Your task to perform on an android device: snooze an email in the gmail app Image 0: 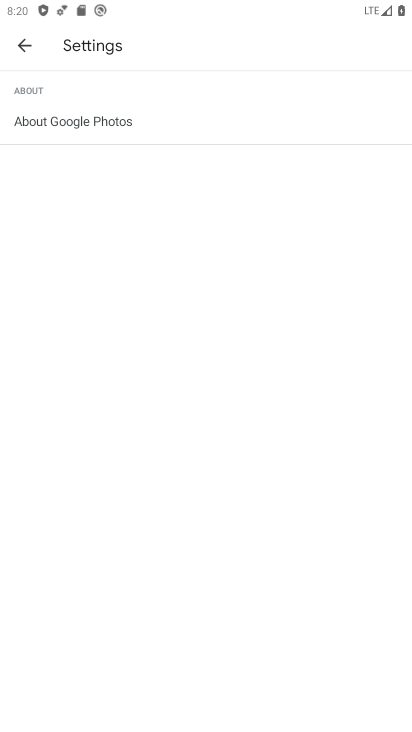
Step 0: press home button
Your task to perform on an android device: snooze an email in the gmail app Image 1: 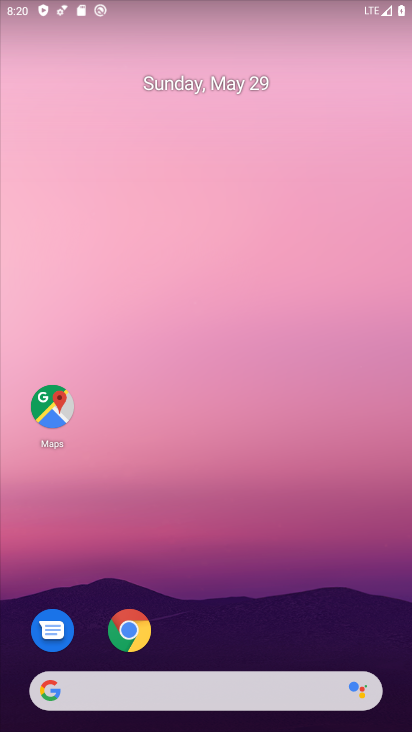
Step 1: drag from (232, 658) to (163, 123)
Your task to perform on an android device: snooze an email in the gmail app Image 2: 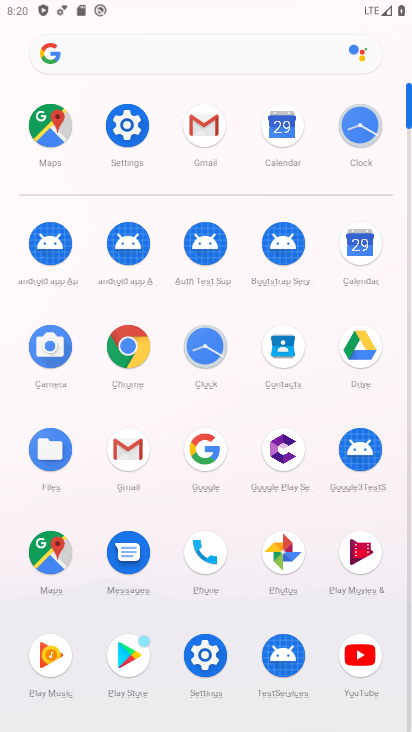
Step 2: click (114, 451)
Your task to perform on an android device: snooze an email in the gmail app Image 3: 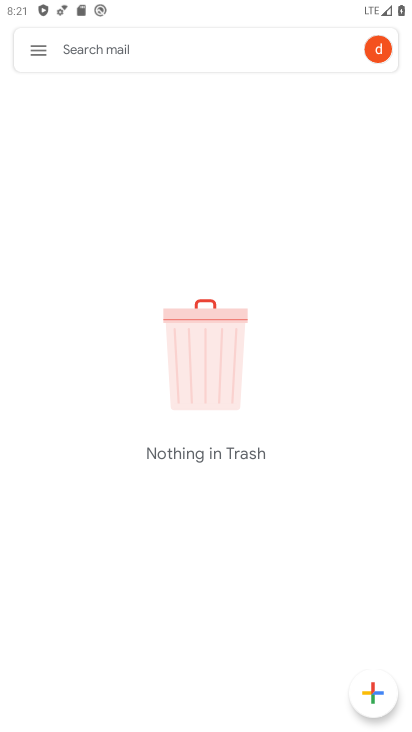
Step 3: click (37, 58)
Your task to perform on an android device: snooze an email in the gmail app Image 4: 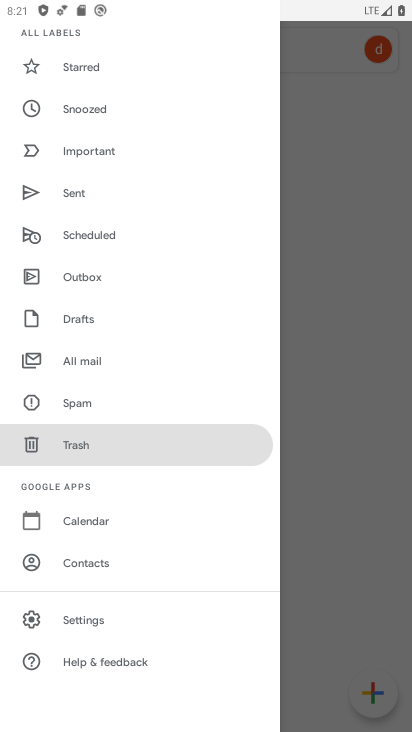
Step 4: click (75, 345)
Your task to perform on an android device: snooze an email in the gmail app Image 5: 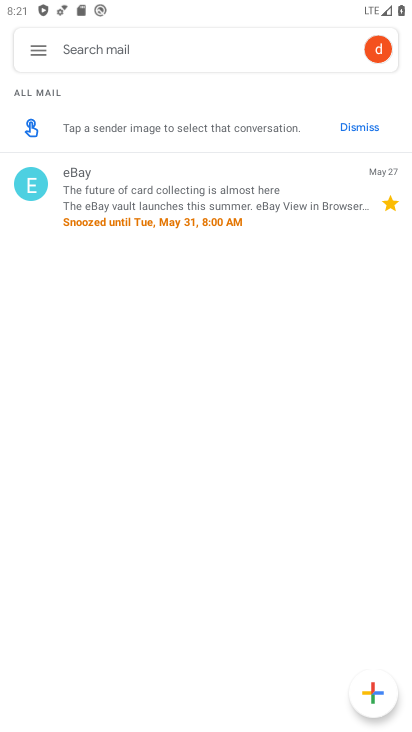
Step 5: click (325, 155)
Your task to perform on an android device: snooze an email in the gmail app Image 6: 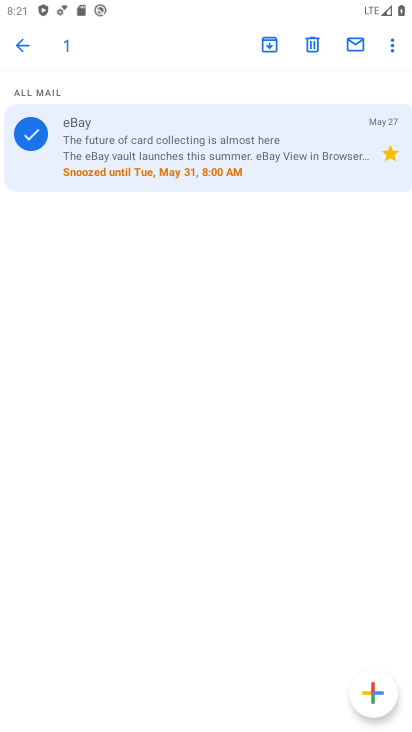
Step 6: click (393, 40)
Your task to perform on an android device: snooze an email in the gmail app Image 7: 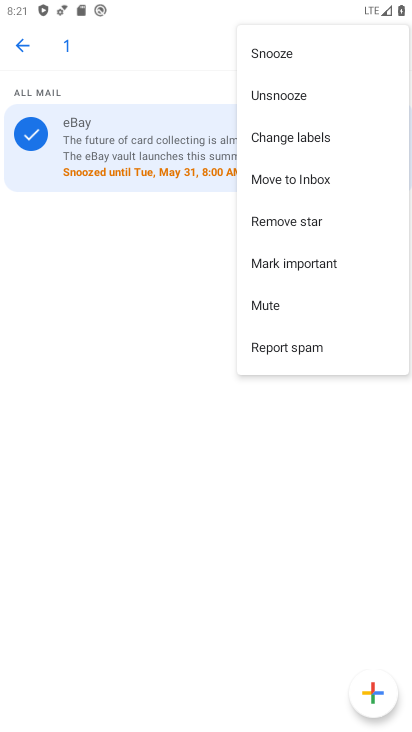
Step 7: click (277, 62)
Your task to perform on an android device: snooze an email in the gmail app Image 8: 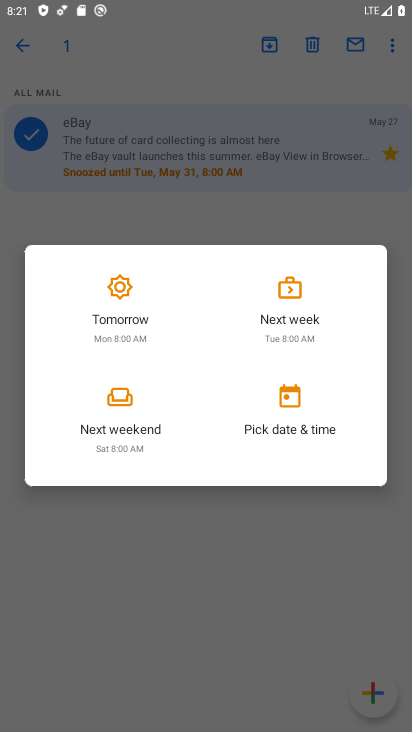
Step 8: click (139, 412)
Your task to perform on an android device: snooze an email in the gmail app Image 9: 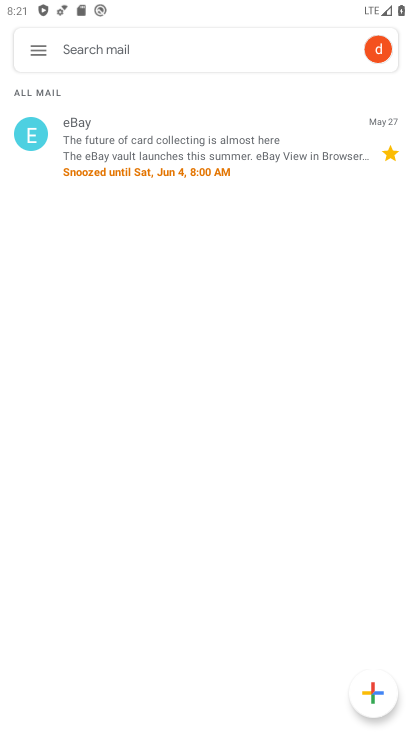
Step 9: task complete